Your task to perform on an android device: remove spam from my inbox in the gmail app Image 0: 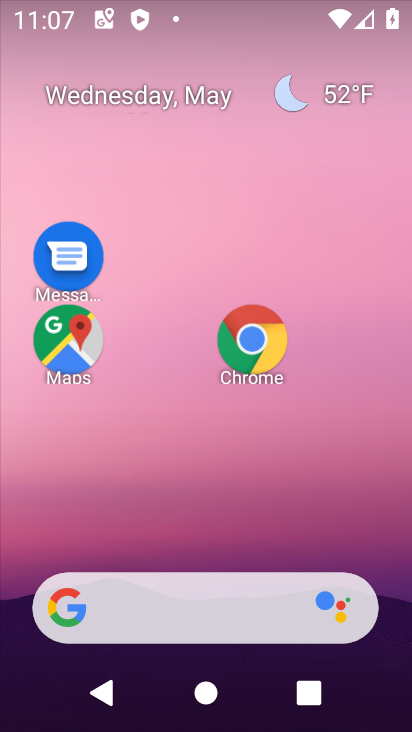
Step 0: drag from (214, 527) to (202, 63)
Your task to perform on an android device: remove spam from my inbox in the gmail app Image 1: 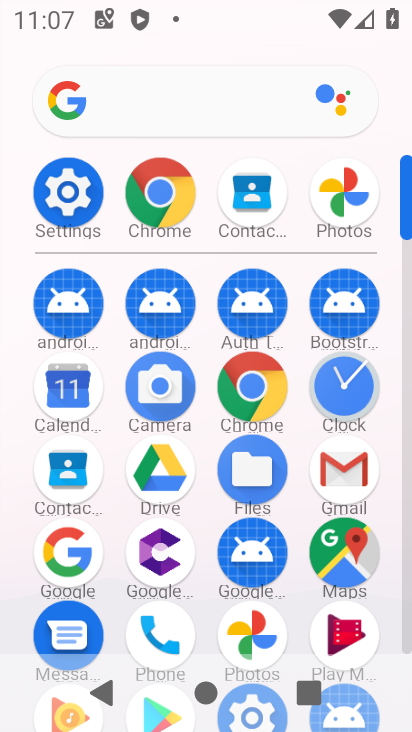
Step 1: click (360, 480)
Your task to perform on an android device: remove spam from my inbox in the gmail app Image 2: 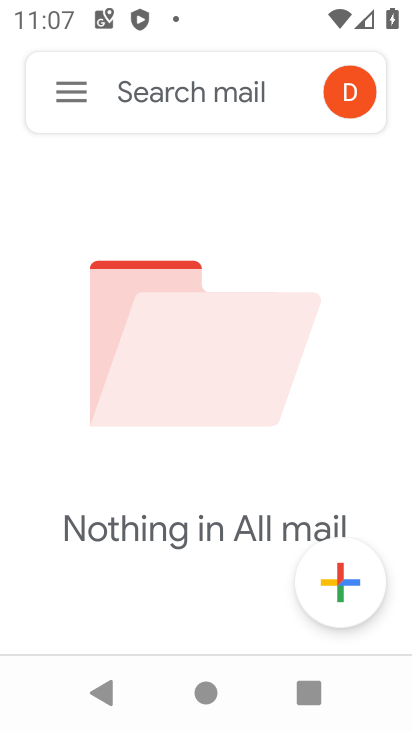
Step 2: click (65, 87)
Your task to perform on an android device: remove spam from my inbox in the gmail app Image 3: 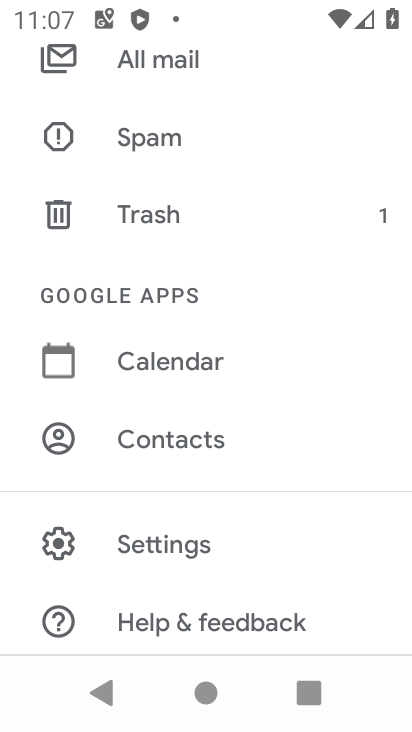
Step 3: drag from (185, 222) to (248, 589)
Your task to perform on an android device: remove spam from my inbox in the gmail app Image 4: 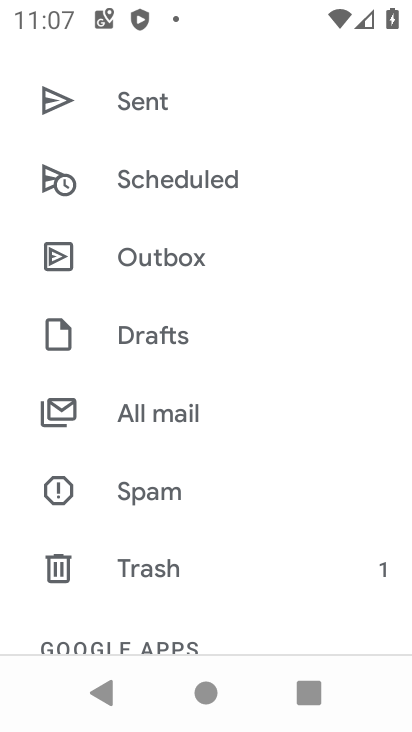
Step 4: drag from (184, 222) to (260, 614)
Your task to perform on an android device: remove spam from my inbox in the gmail app Image 5: 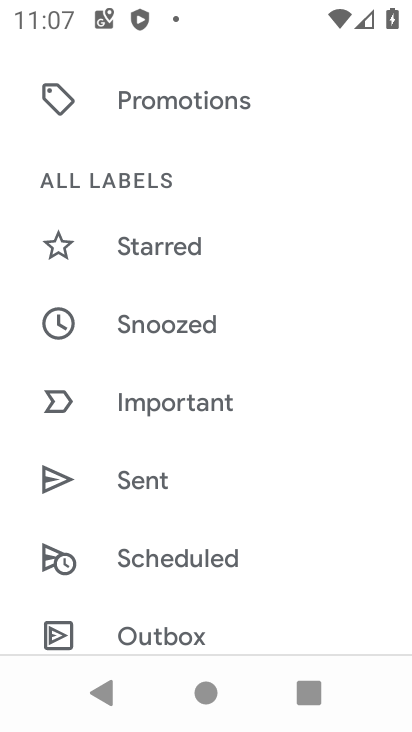
Step 5: drag from (140, 171) to (154, 79)
Your task to perform on an android device: remove spam from my inbox in the gmail app Image 6: 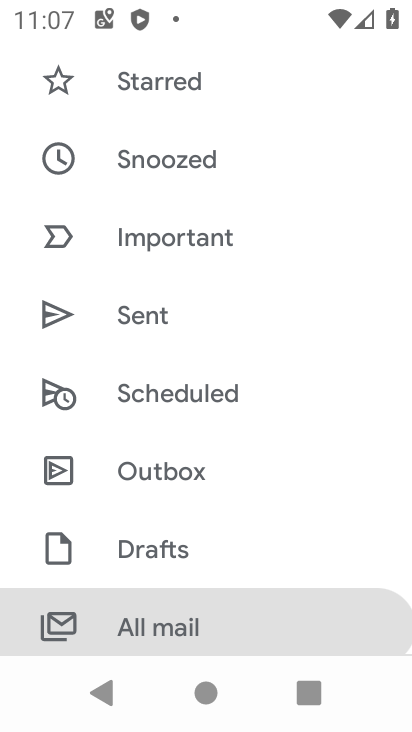
Step 6: drag from (193, 468) to (196, 218)
Your task to perform on an android device: remove spam from my inbox in the gmail app Image 7: 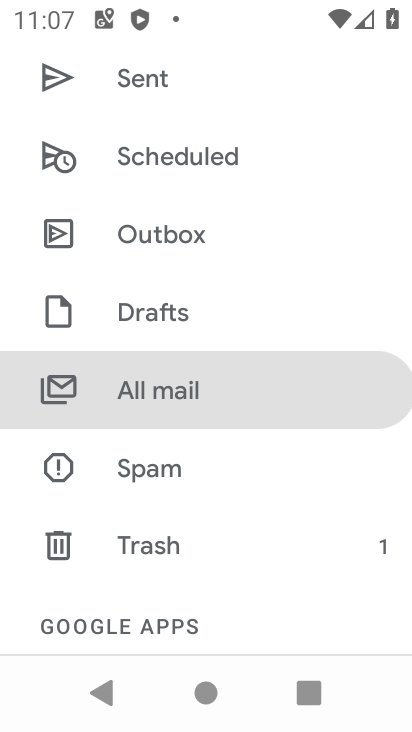
Step 7: click (143, 445)
Your task to perform on an android device: remove spam from my inbox in the gmail app Image 8: 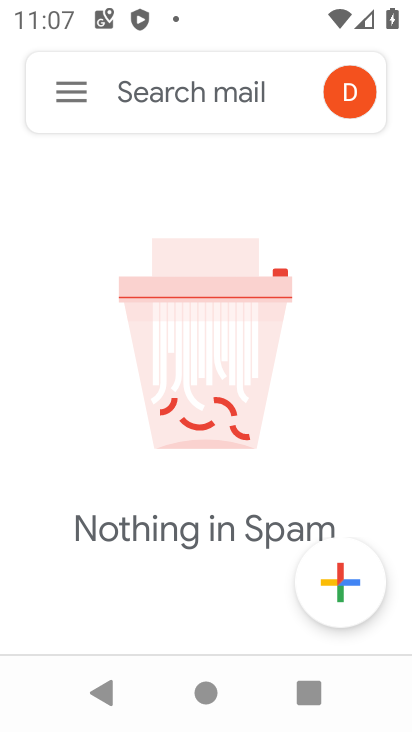
Step 8: task complete